Your task to perform on an android device: turn on wifi Image 0: 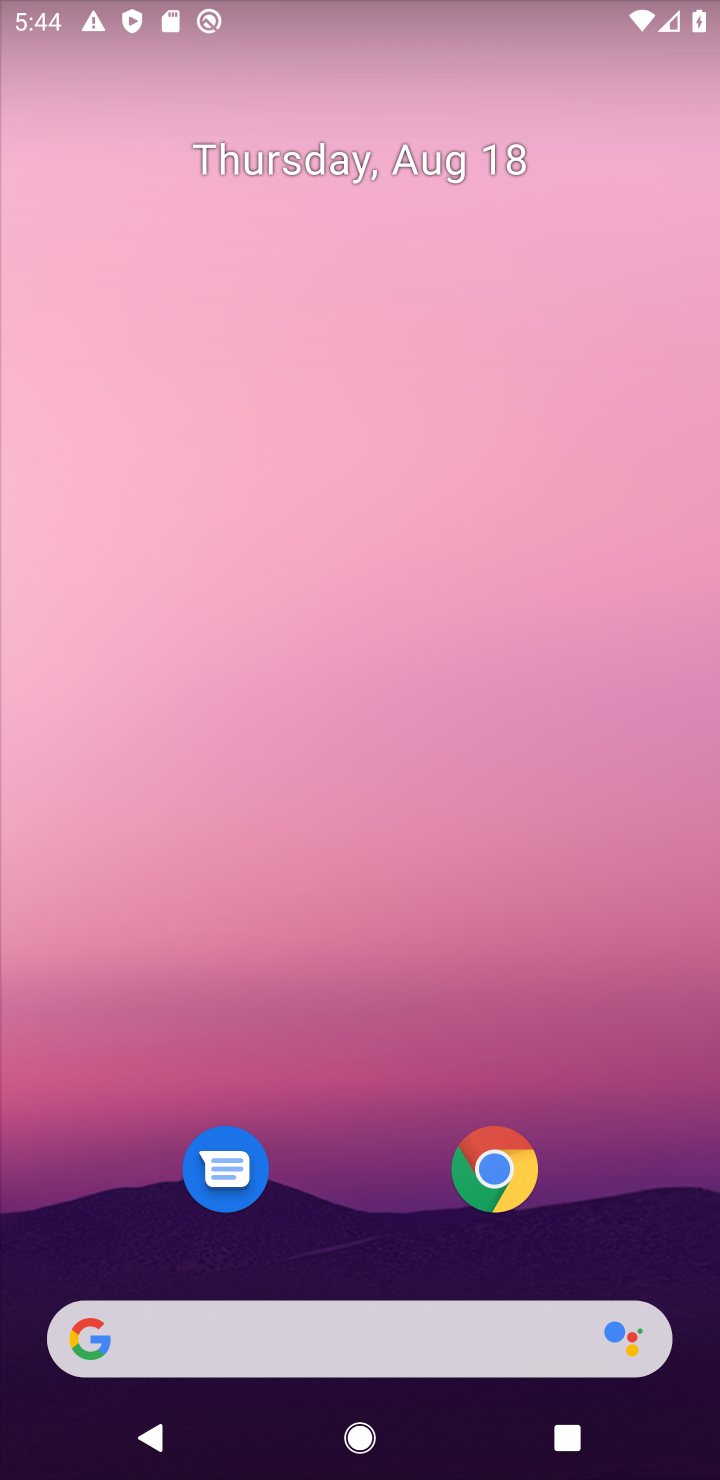
Step 0: press home button
Your task to perform on an android device: turn on wifi Image 1: 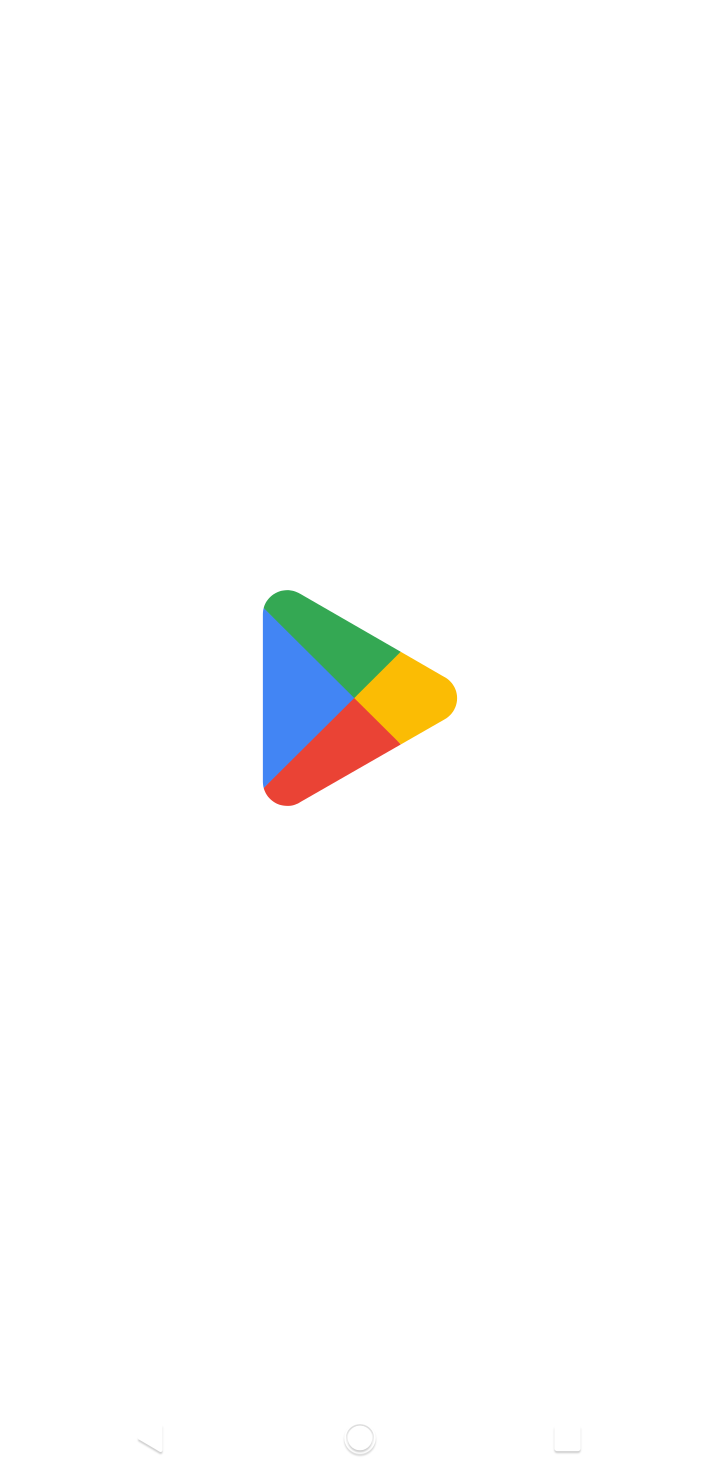
Step 1: press home button
Your task to perform on an android device: turn on wifi Image 2: 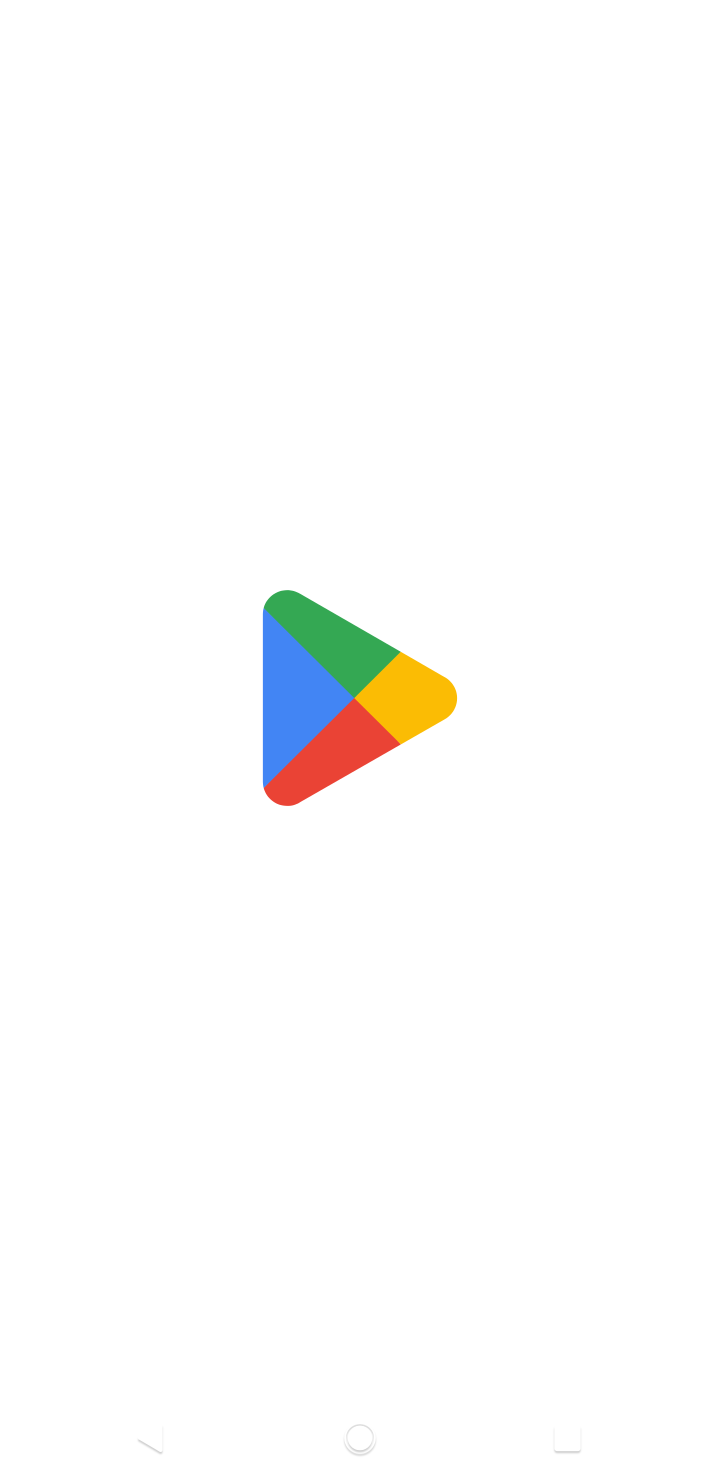
Step 2: click (185, 1398)
Your task to perform on an android device: turn on wifi Image 3: 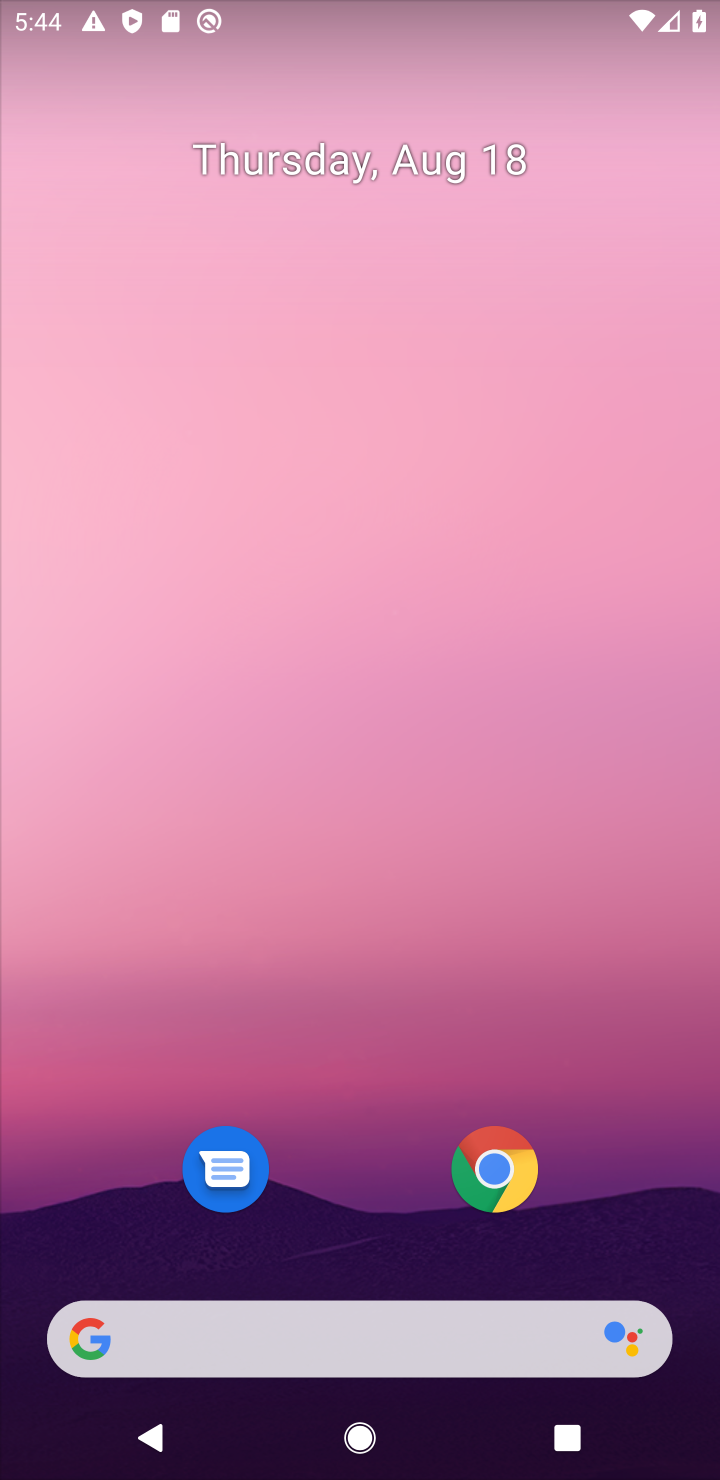
Step 3: task complete